Your task to perform on an android device: Search for Italian restaurants on Maps Image 0: 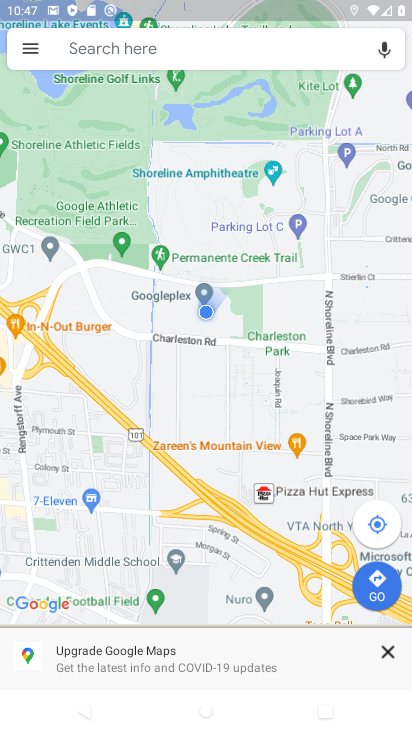
Step 0: click (242, 39)
Your task to perform on an android device: Search for Italian restaurants on Maps Image 1: 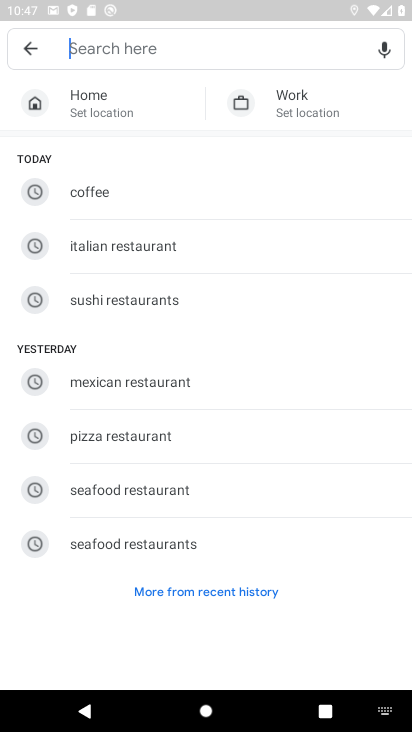
Step 1: type "Italian restaurants"
Your task to perform on an android device: Search for Italian restaurants on Maps Image 2: 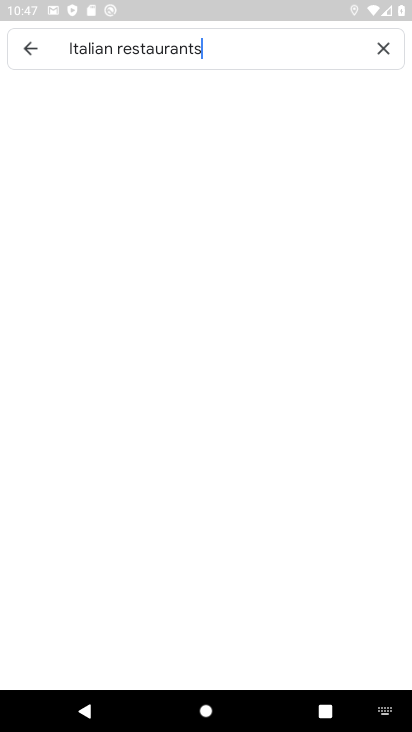
Step 2: press enter
Your task to perform on an android device: Search for Italian restaurants on Maps Image 3: 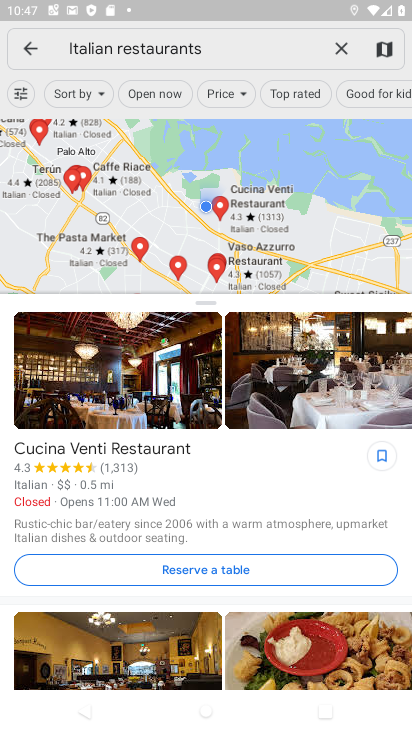
Step 3: task complete